Your task to perform on an android device: Go to network settings Image 0: 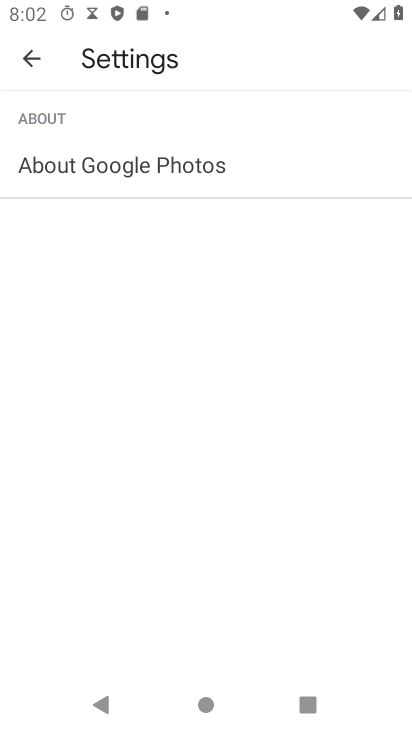
Step 0: press home button
Your task to perform on an android device: Go to network settings Image 1: 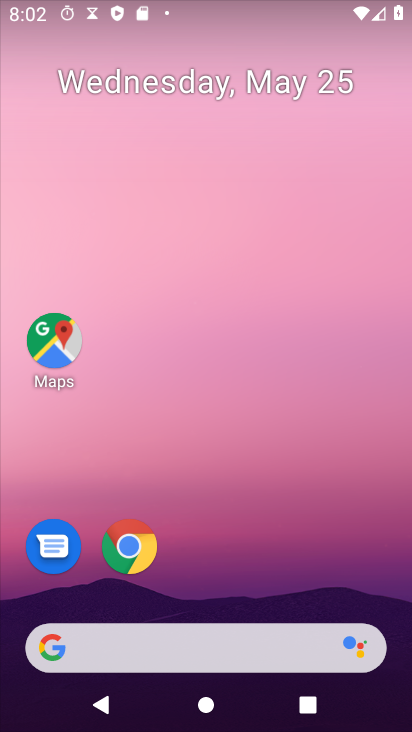
Step 1: drag from (208, 561) to (252, 9)
Your task to perform on an android device: Go to network settings Image 2: 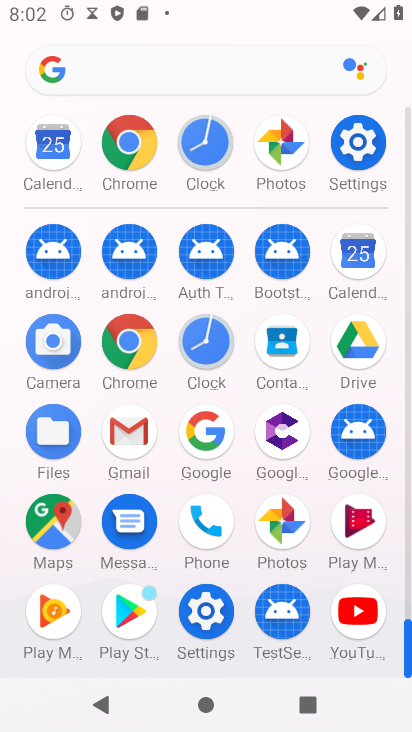
Step 2: click (346, 158)
Your task to perform on an android device: Go to network settings Image 3: 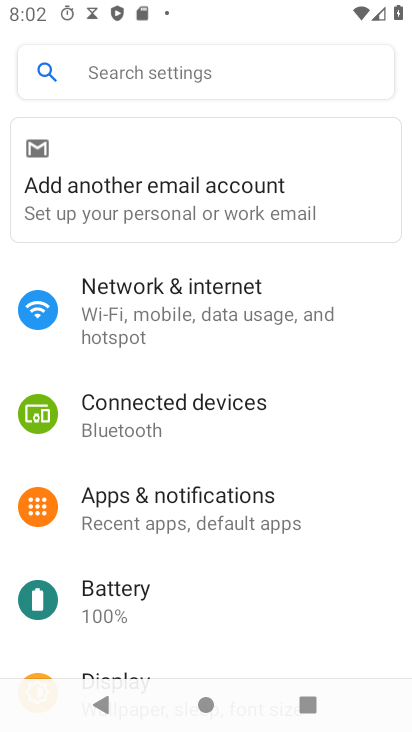
Step 3: click (113, 303)
Your task to perform on an android device: Go to network settings Image 4: 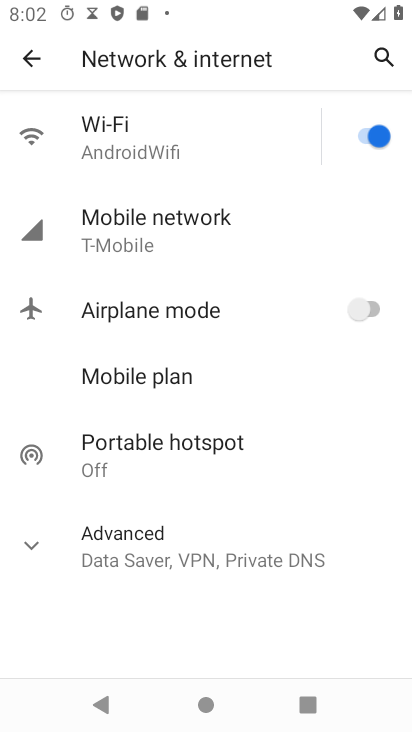
Step 4: task complete